Your task to perform on an android device: Open calendar and show me the third week of next month Image 0: 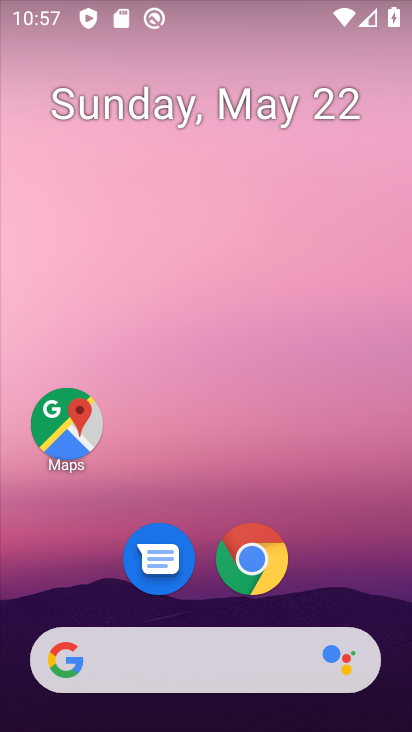
Step 0: drag from (133, 650) to (269, 5)
Your task to perform on an android device: Open calendar and show me the third week of next month Image 1: 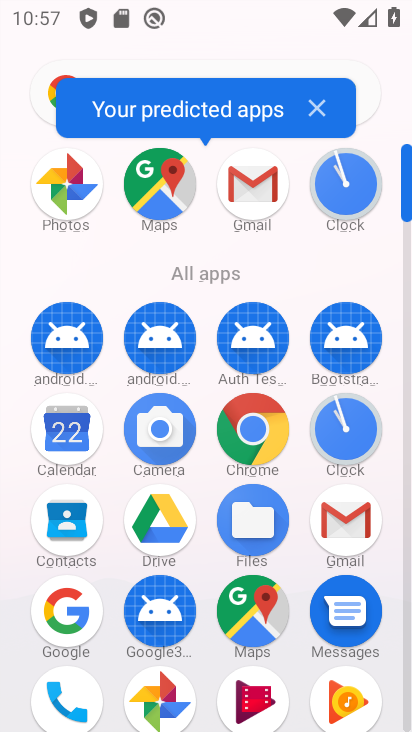
Step 1: click (51, 439)
Your task to perform on an android device: Open calendar and show me the third week of next month Image 2: 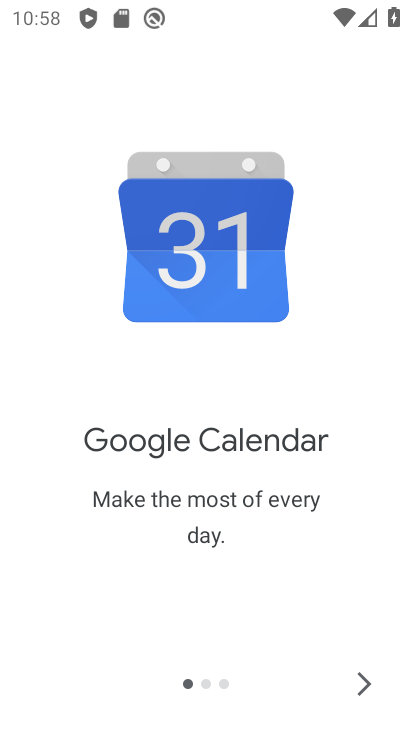
Step 2: click (362, 678)
Your task to perform on an android device: Open calendar and show me the third week of next month Image 3: 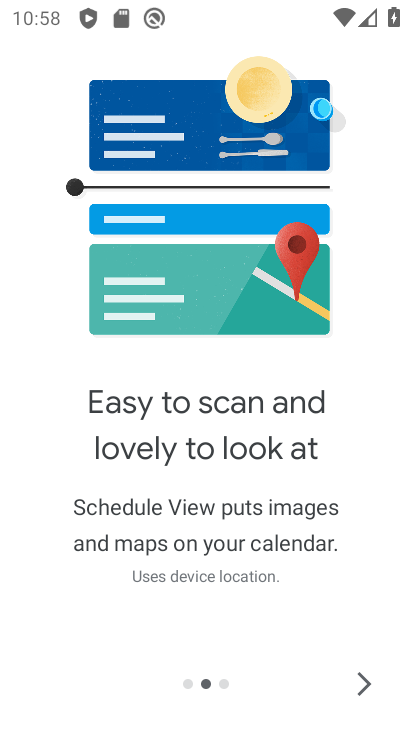
Step 3: click (374, 699)
Your task to perform on an android device: Open calendar and show me the third week of next month Image 4: 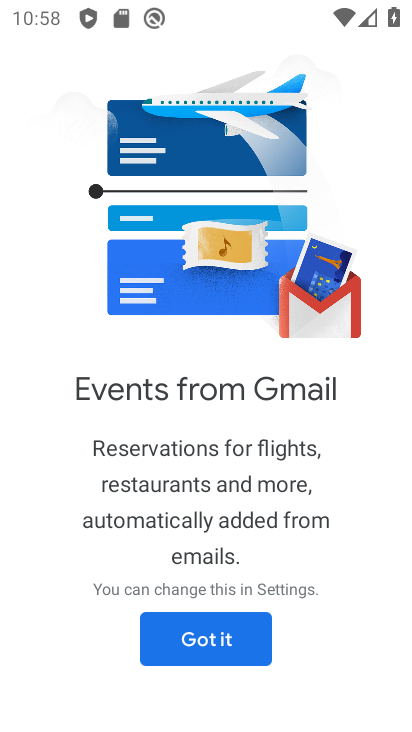
Step 4: click (215, 644)
Your task to perform on an android device: Open calendar and show me the third week of next month Image 5: 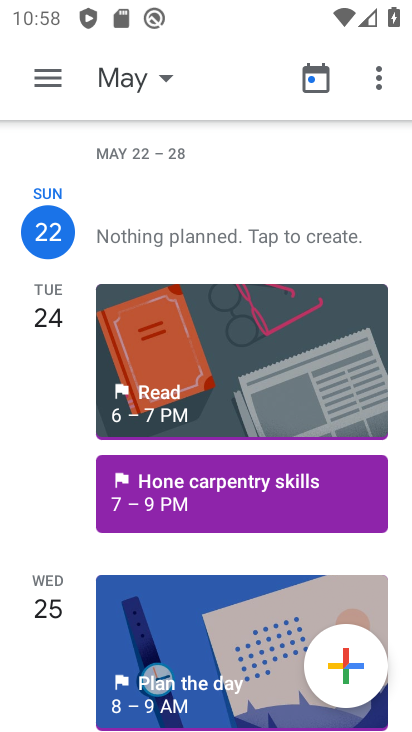
Step 5: click (45, 73)
Your task to perform on an android device: Open calendar and show me the third week of next month Image 6: 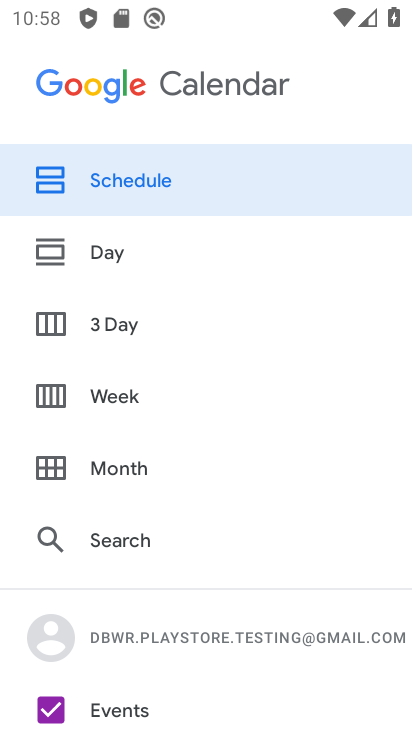
Step 6: click (97, 457)
Your task to perform on an android device: Open calendar and show me the third week of next month Image 7: 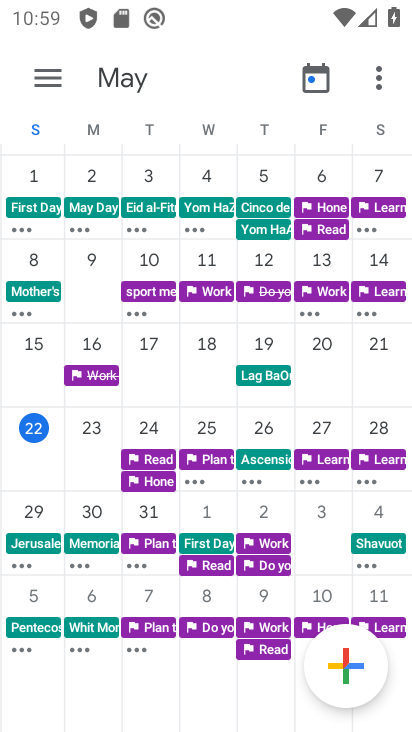
Step 7: task complete